Your task to perform on an android device: set the timer Image 0: 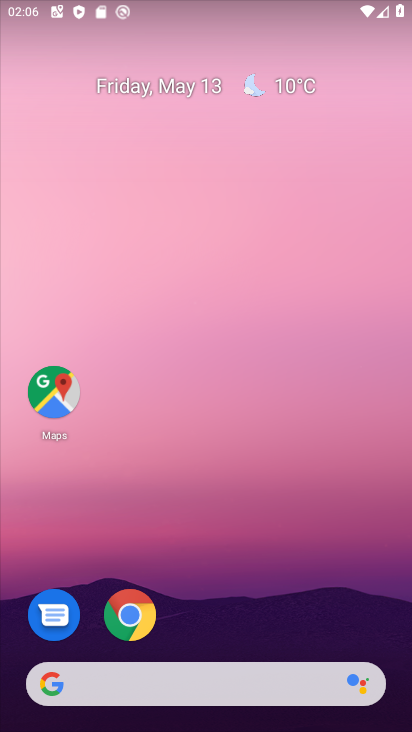
Step 0: drag from (209, 629) to (149, 203)
Your task to perform on an android device: set the timer Image 1: 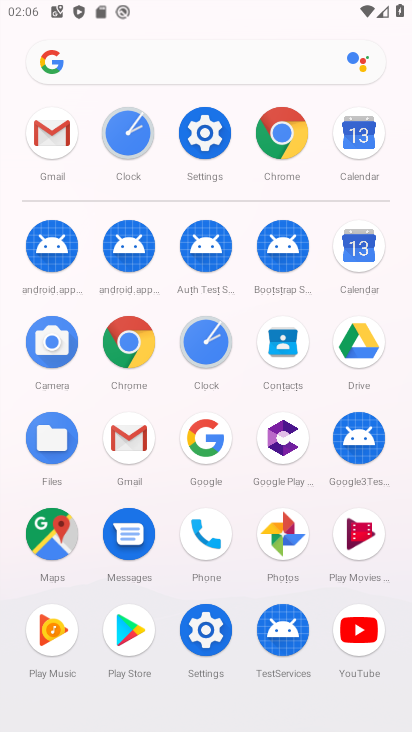
Step 1: click (210, 353)
Your task to perform on an android device: set the timer Image 2: 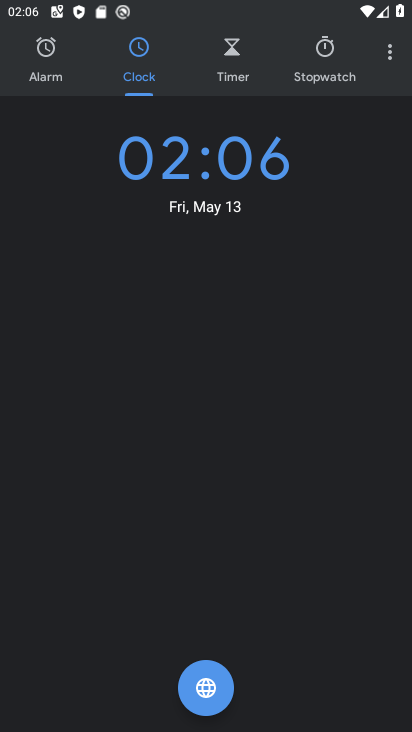
Step 2: click (233, 45)
Your task to perform on an android device: set the timer Image 3: 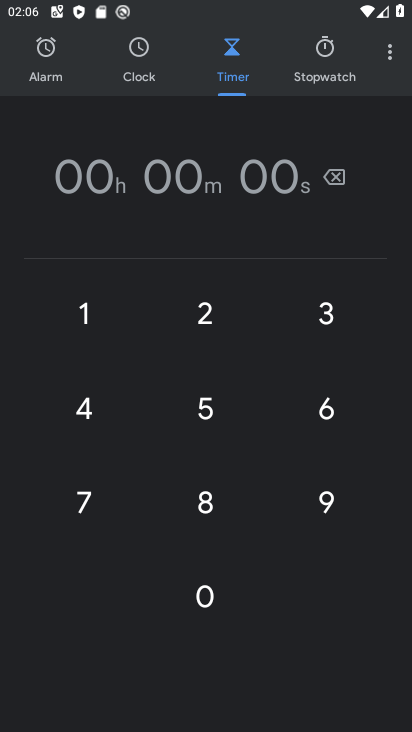
Step 3: click (84, 314)
Your task to perform on an android device: set the timer Image 4: 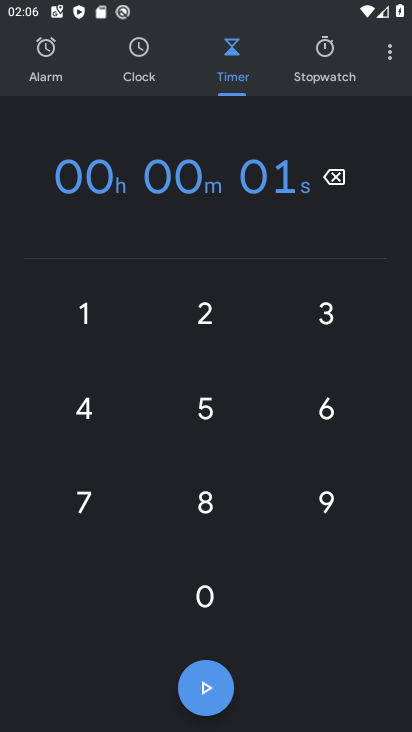
Step 4: click (326, 332)
Your task to perform on an android device: set the timer Image 5: 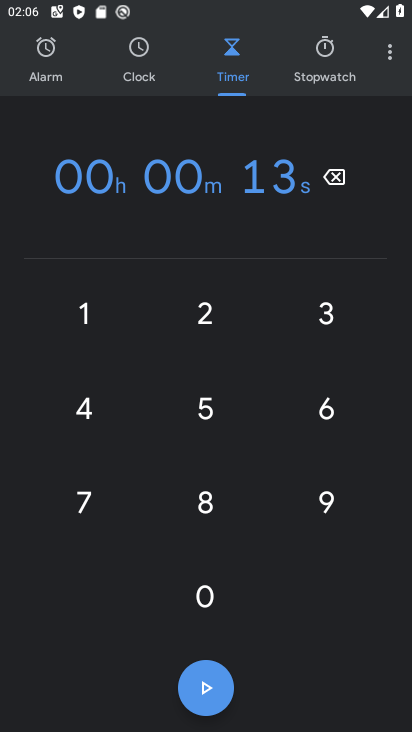
Step 5: click (223, 590)
Your task to perform on an android device: set the timer Image 6: 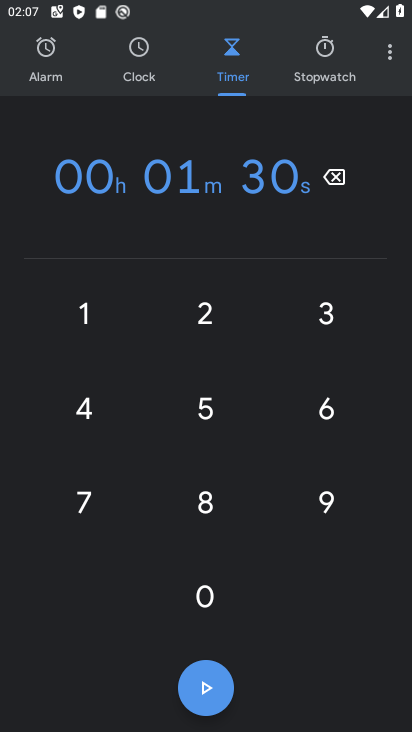
Step 6: click (209, 593)
Your task to perform on an android device: set the timer Image 7: 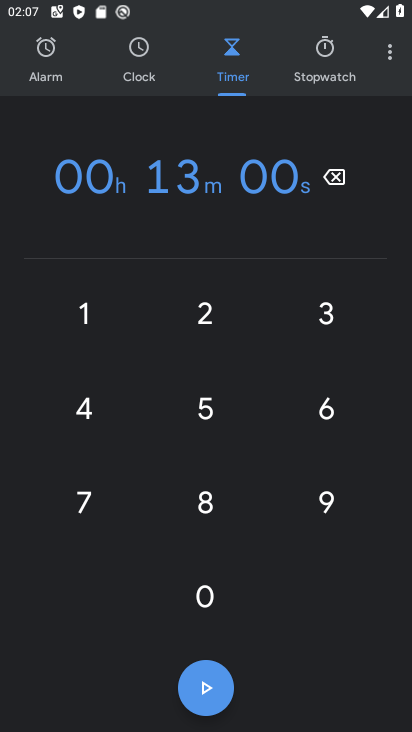
Step 7: click (209, 593)
Your task to perform on an android device: set the timer Image 8: 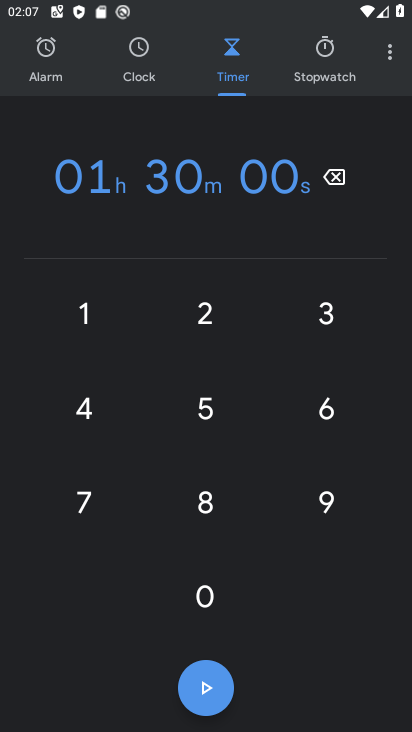
Step 8: click (207, 681)
Your task to perform on an android device: set the timer Image 9: 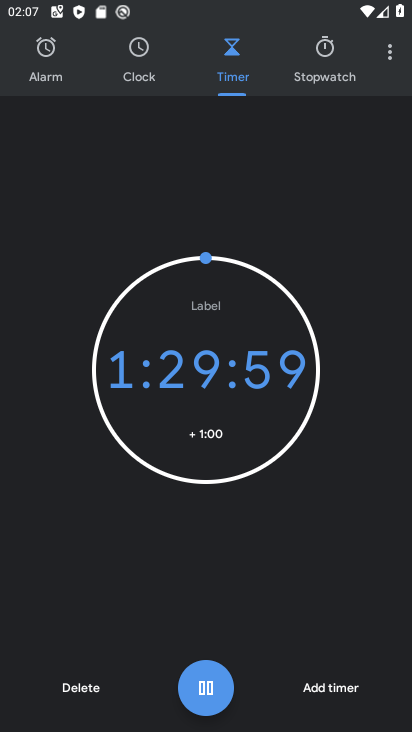
Step 9: click (341, 689)
Your task to perform on an android device: set the timer Image 10: 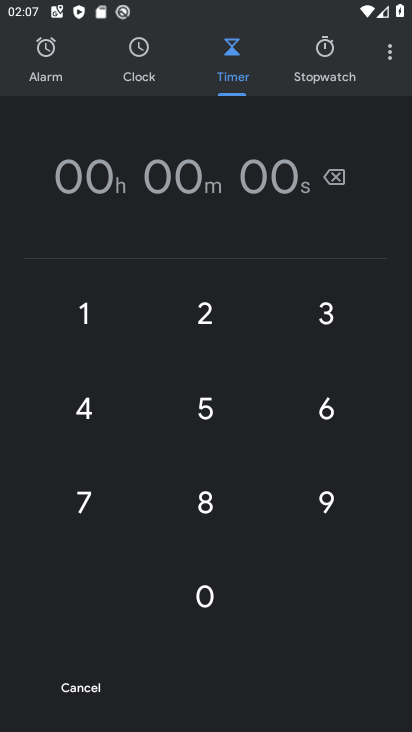
Step 10: task complete